Your task to perform on an android device: find snoozed emails in the gmail app Image 0: 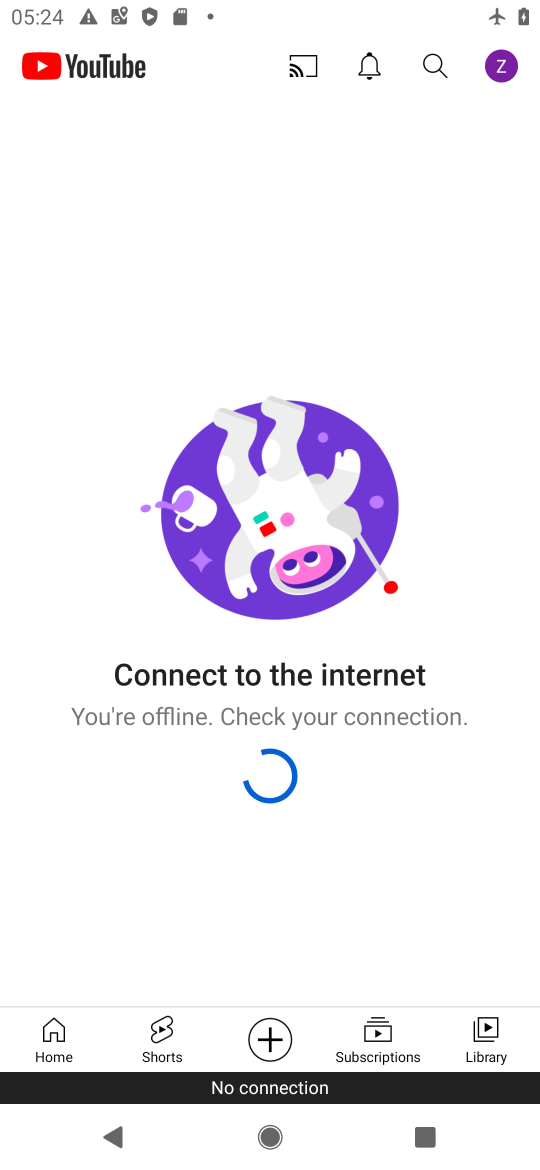
Step 0: drag from (264, 947) to (232, 301)
Your task to perform on an android device: find snoozed emails in the gmail app Image 1: 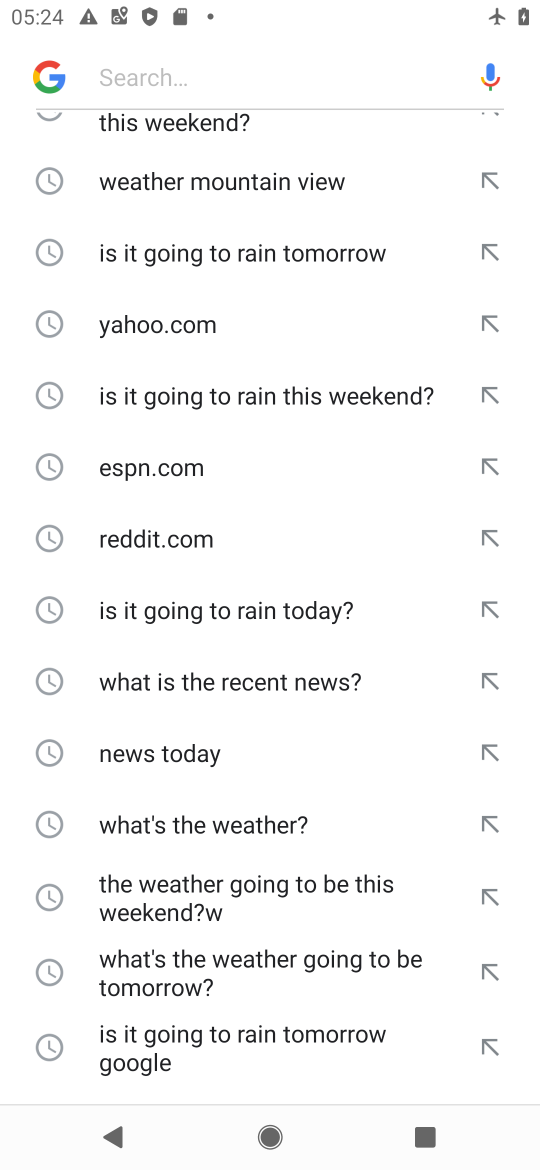
Step 1: press back button
Your task to perform on an android device: find snoozed emails in the gmail app Image 2: 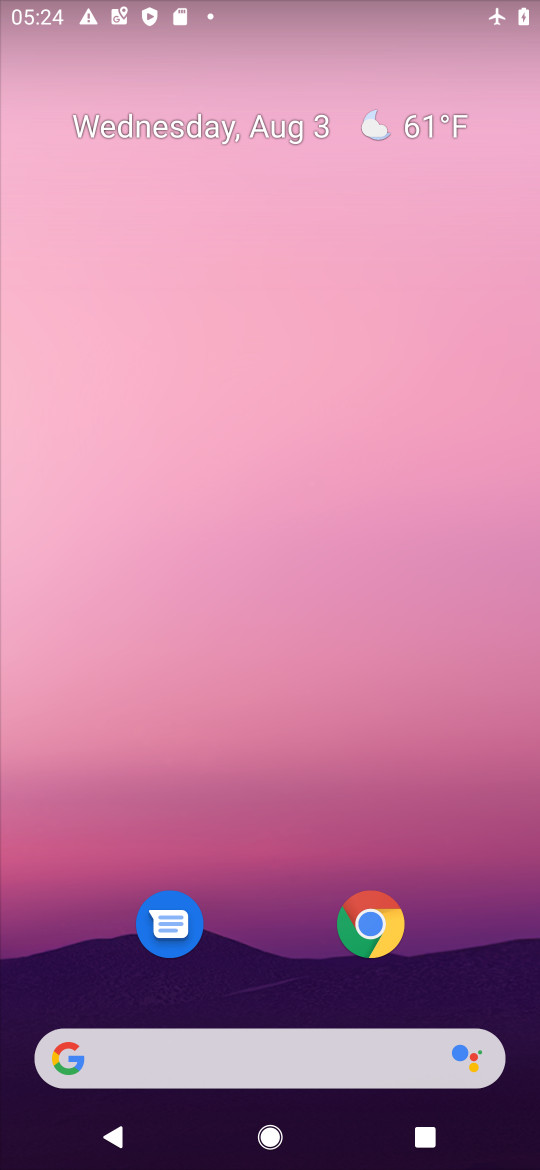
Step 2: drag from (288, 889) to (288, 305)
Your task to perform on an android device: find snoozed emails in the gmail app Image 3: 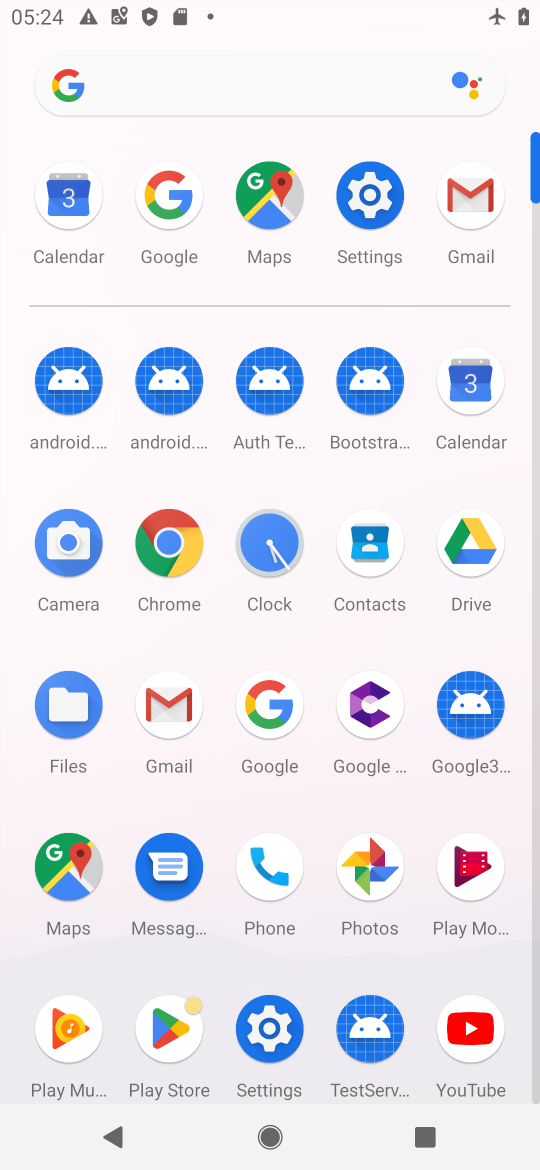
Step 3: click (447, 206)
Your task to perform on an android device: find snoozed emails in the gmail app Image 4: 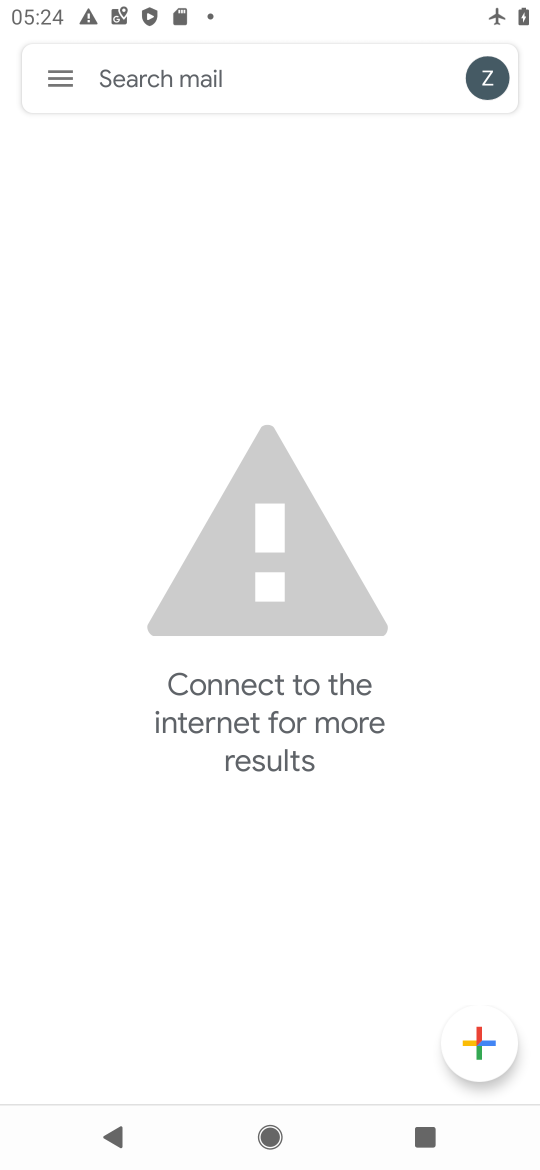
Step 4: click (65, 91)
Your task to perform on an android device: find snoozed emails in the gmail app Image 5: 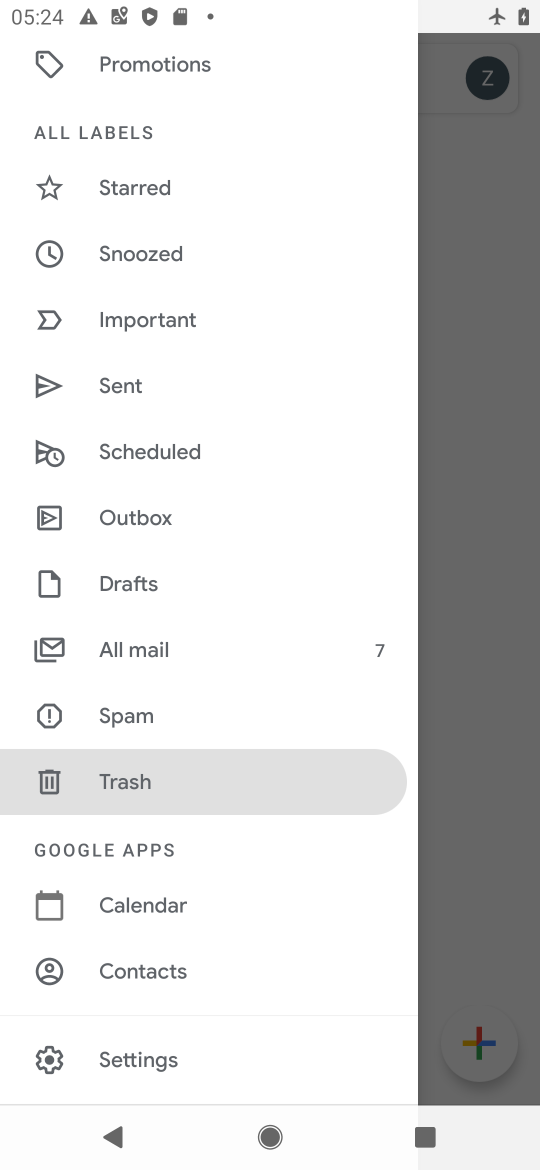
Step 5: click (187, 260)
Your task to perform on an android device: find snoozed emails in the gmail app Image 6: 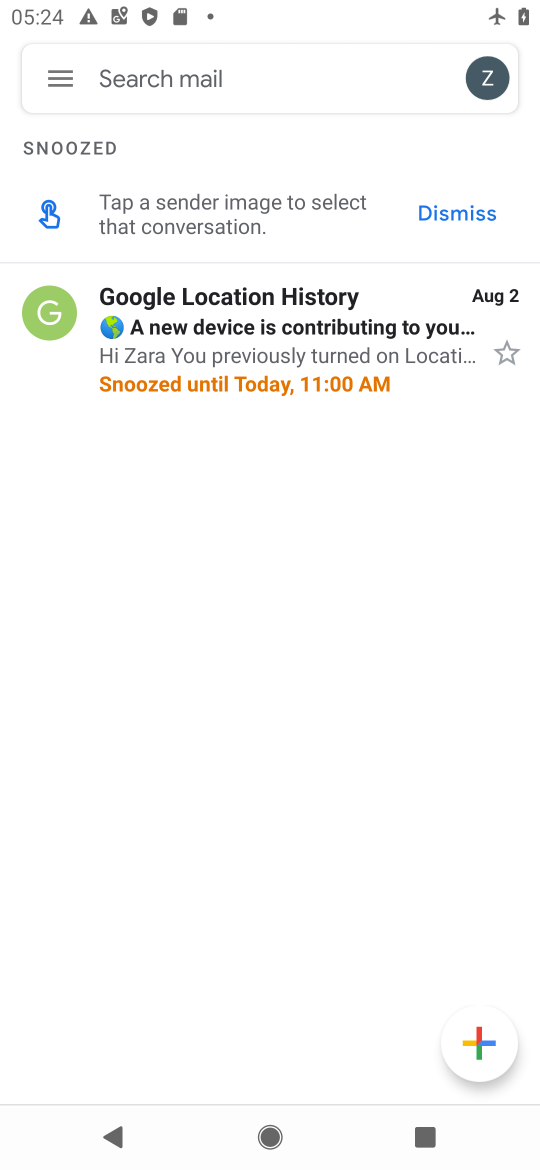
Step 6: task complete